Your task to perform on an android device: install app "Google Docs" Image 0: 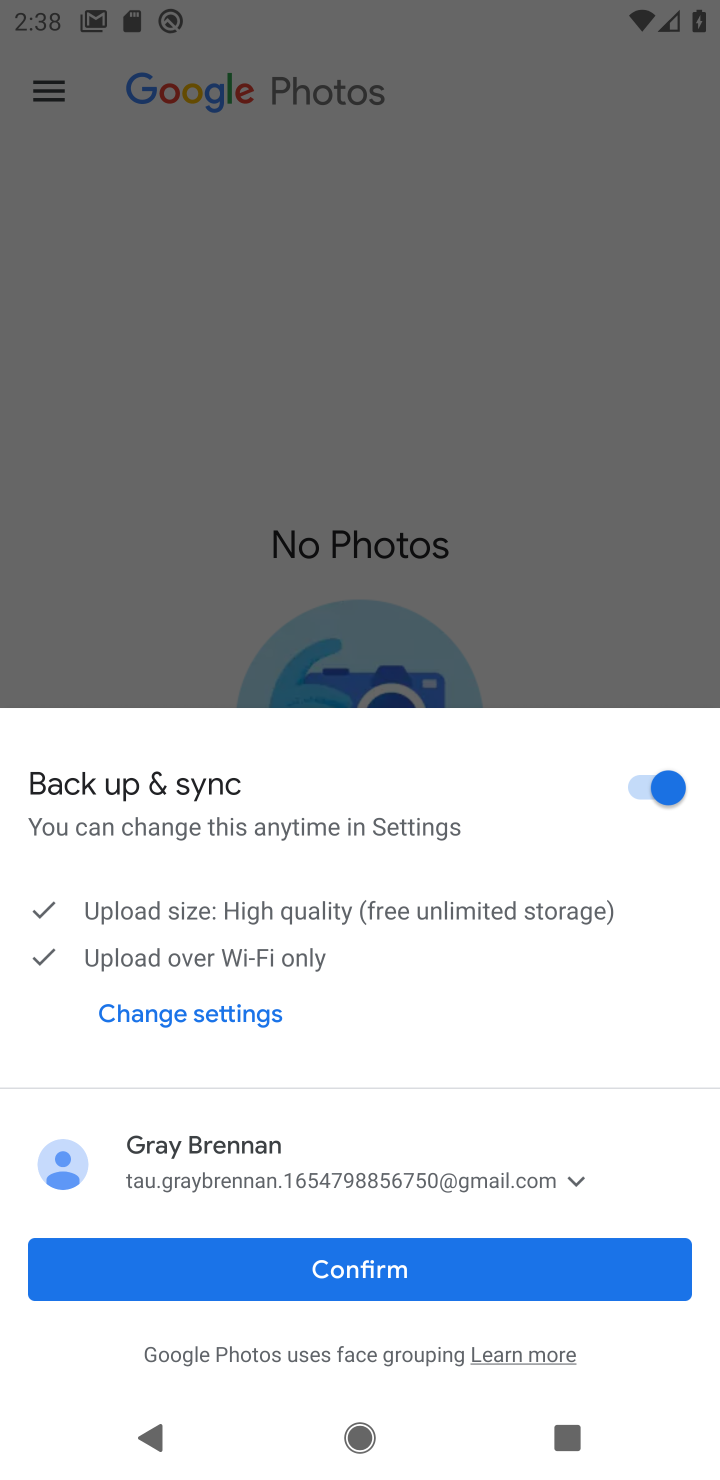
Step 0: press home button
Your task to perform on an android device: install app "Google Docs" Image 1: 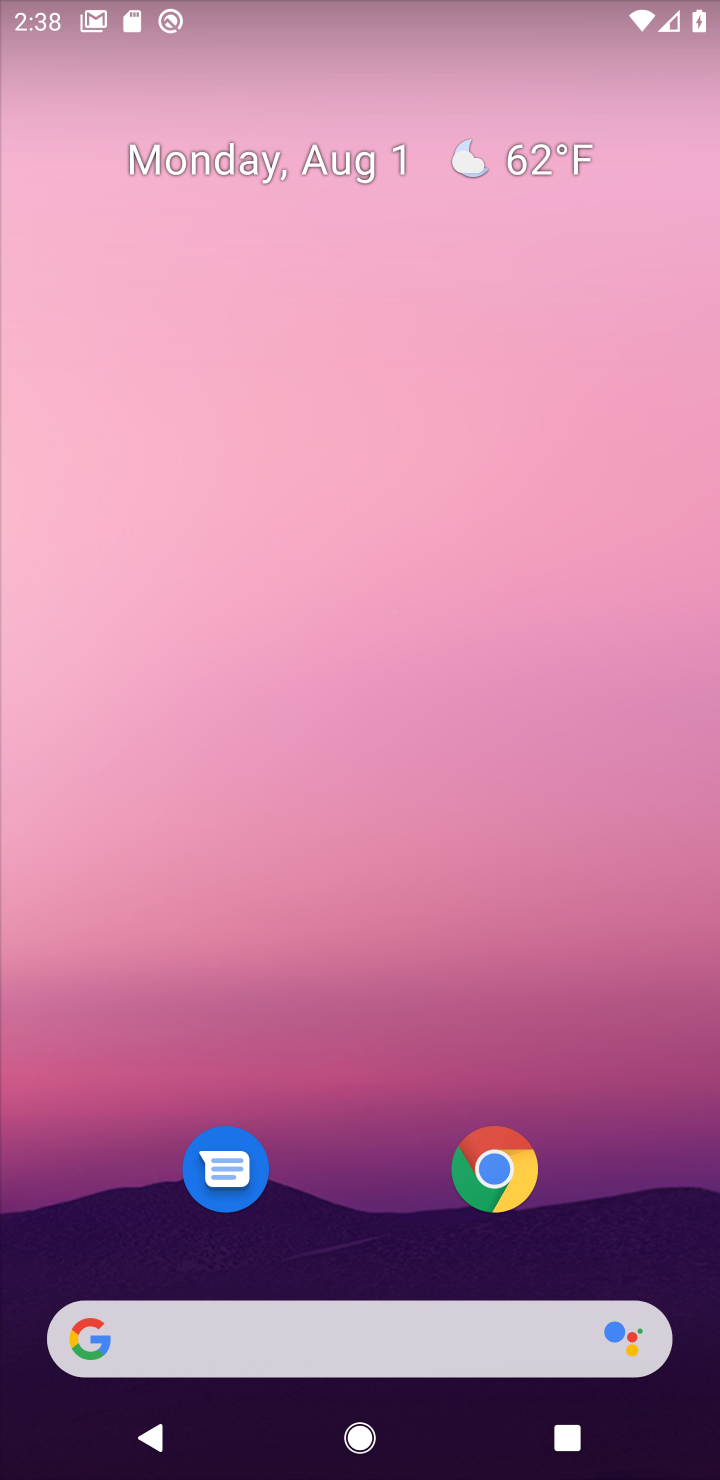
Step 1: click (392, 543)
Your task to perform on an android device: install app "Google Docs" Image 2: 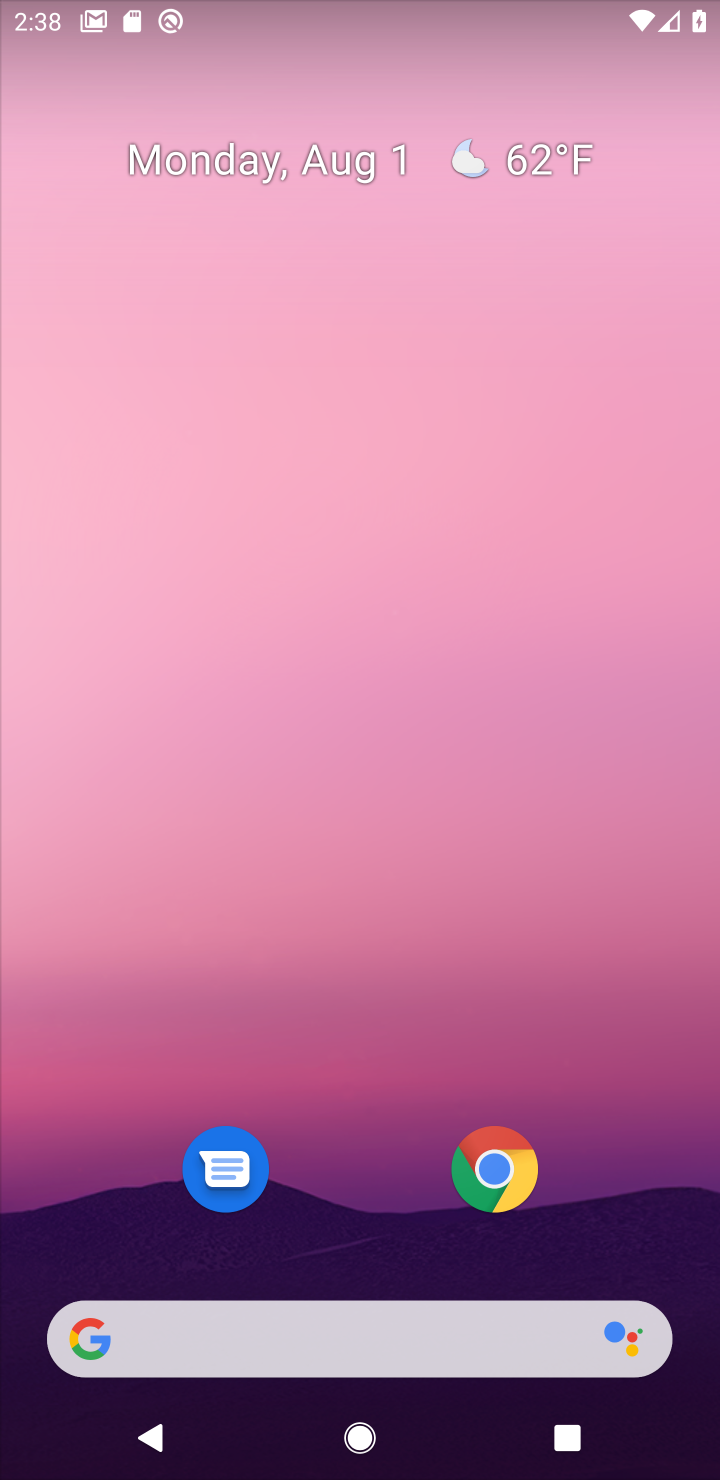
Step 2: drag from (324, 1101) to (381, 139)
Your task to perform on an android device: install app "Google Docs" Image 3: 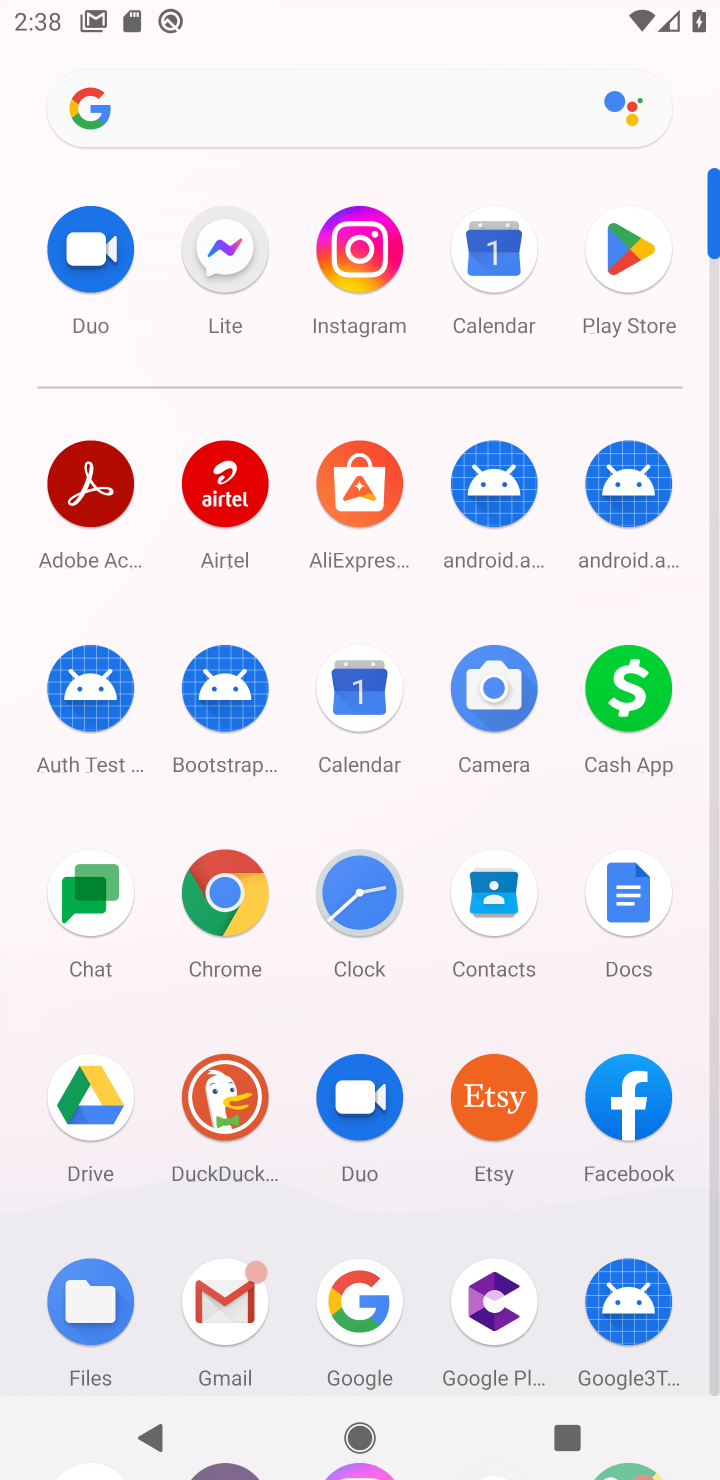
Step 3: click (632, 287)
Your task to perform on an android device: install app "Google Docs" Image 4: 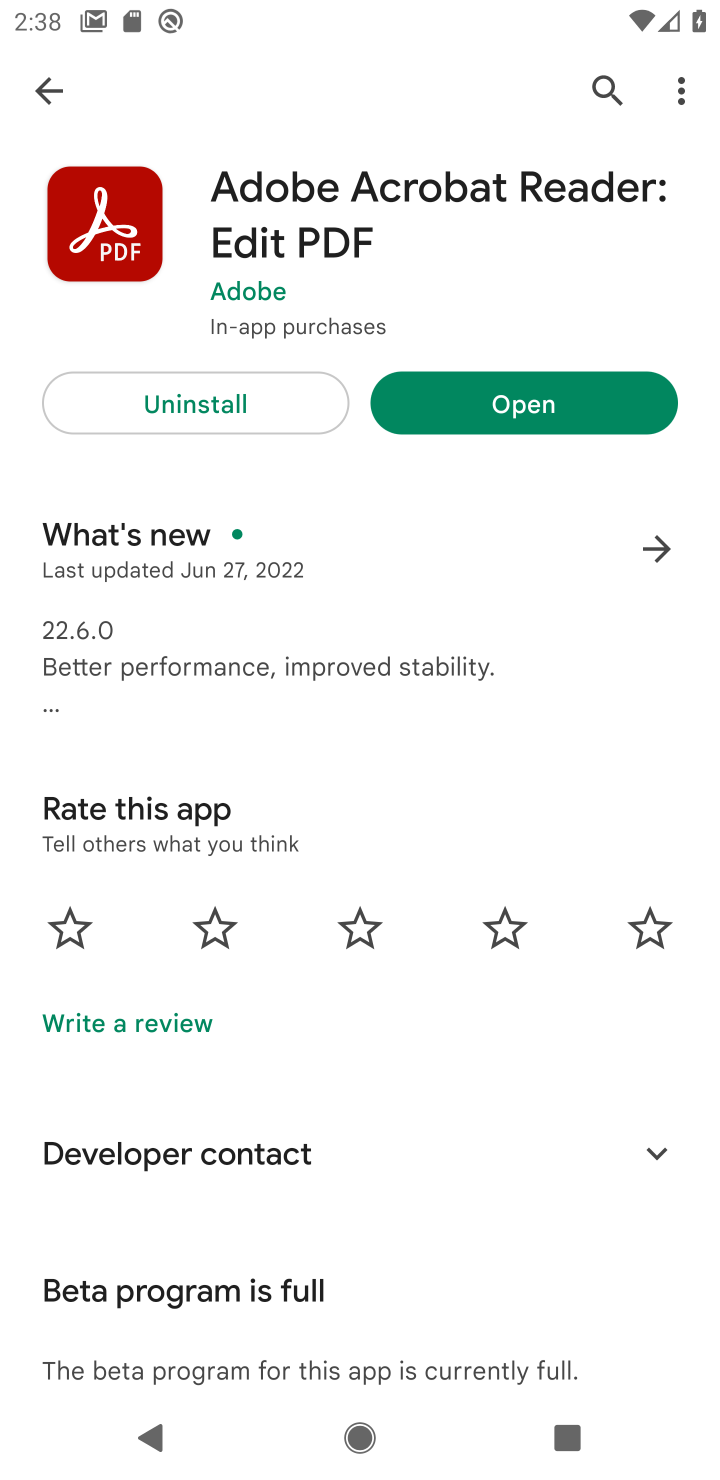
Step 4: click (47, 73)
Your task to perform on an android device: install app "Google Docs" Image 5: 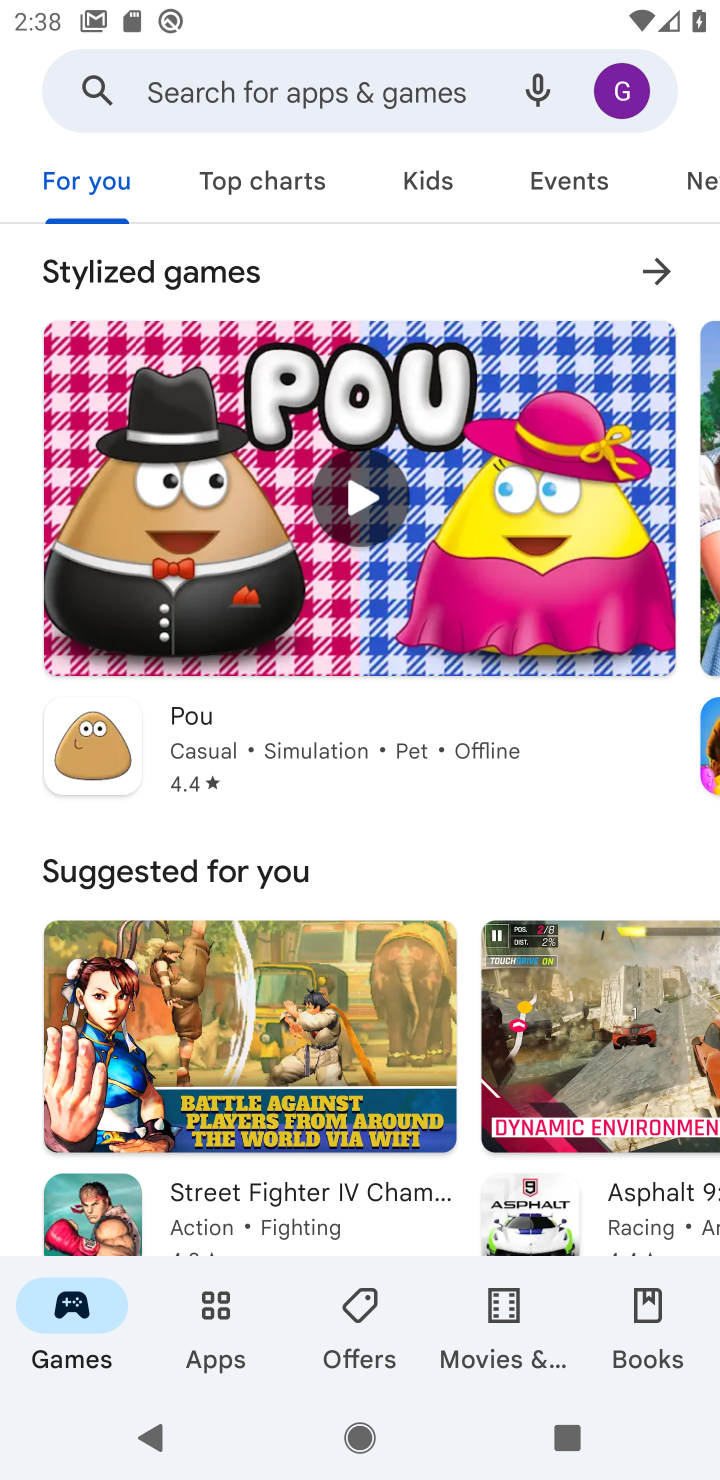
Step 5: click (387, 89)
Your task to perform on an android device: install app "Google Docs" Image 6: 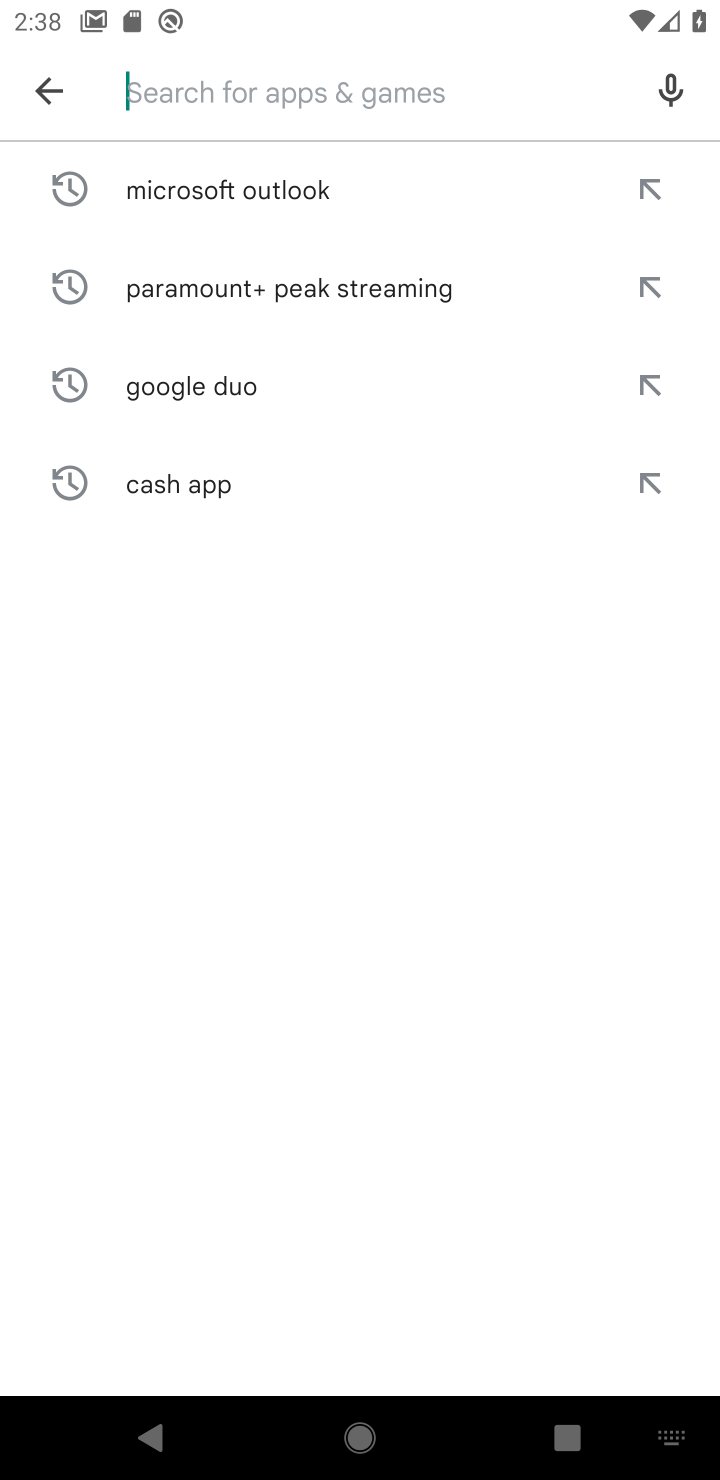
Step 6: type "Google Docs"
Your task to perform on an android device: install app "Google Docs" Image 7: 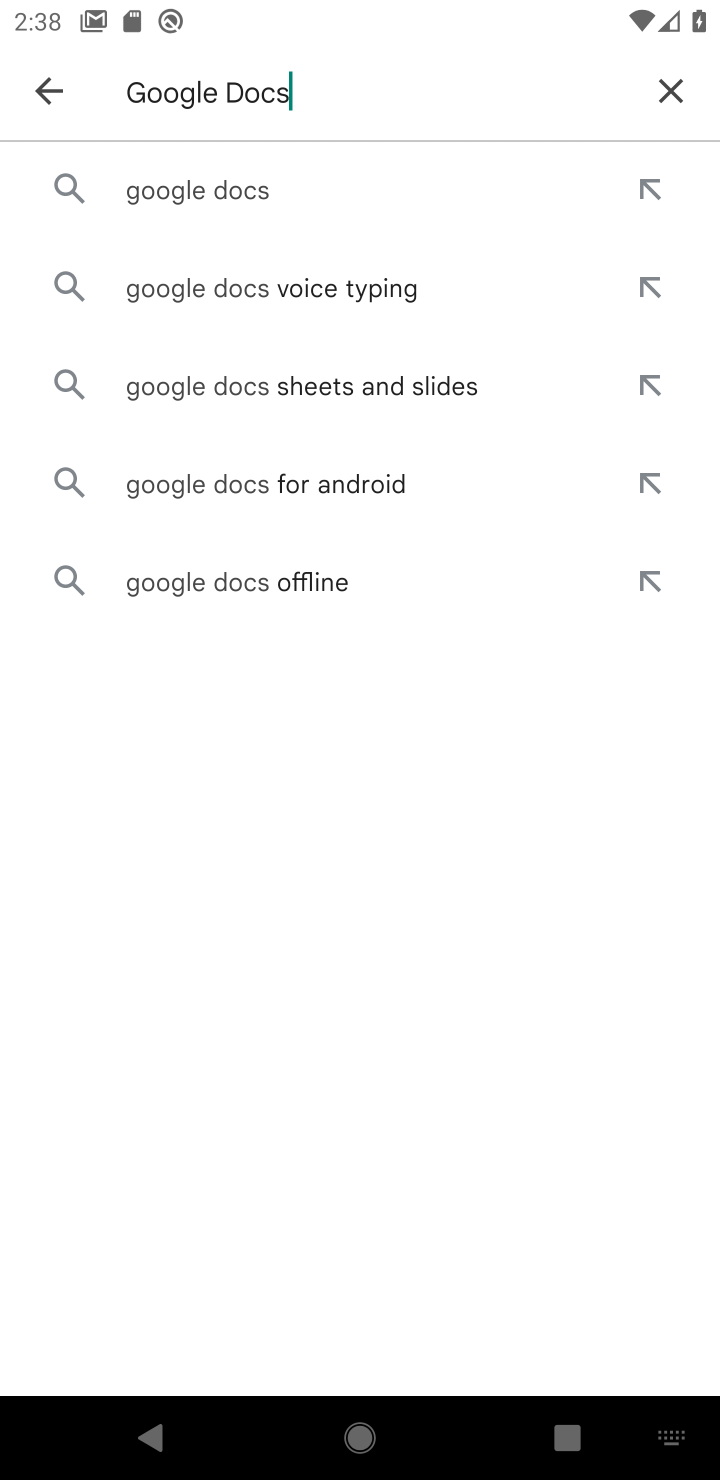
Step 7: click (184, 190)
Your task to perform on an android device: install app "Google Docs" Image 8: 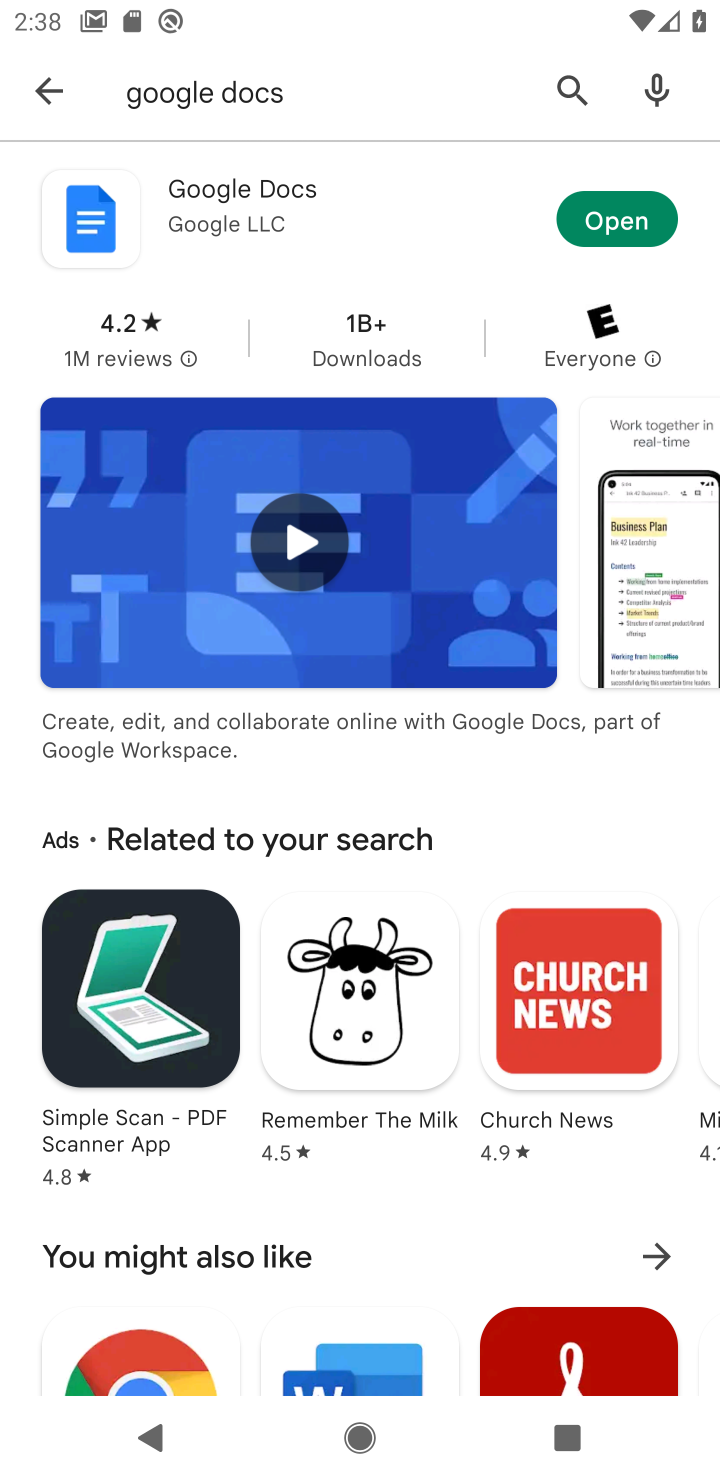
Step 8: click (624, 241)
Your task to perform on an android device: install app "Google Docs" Image 9: 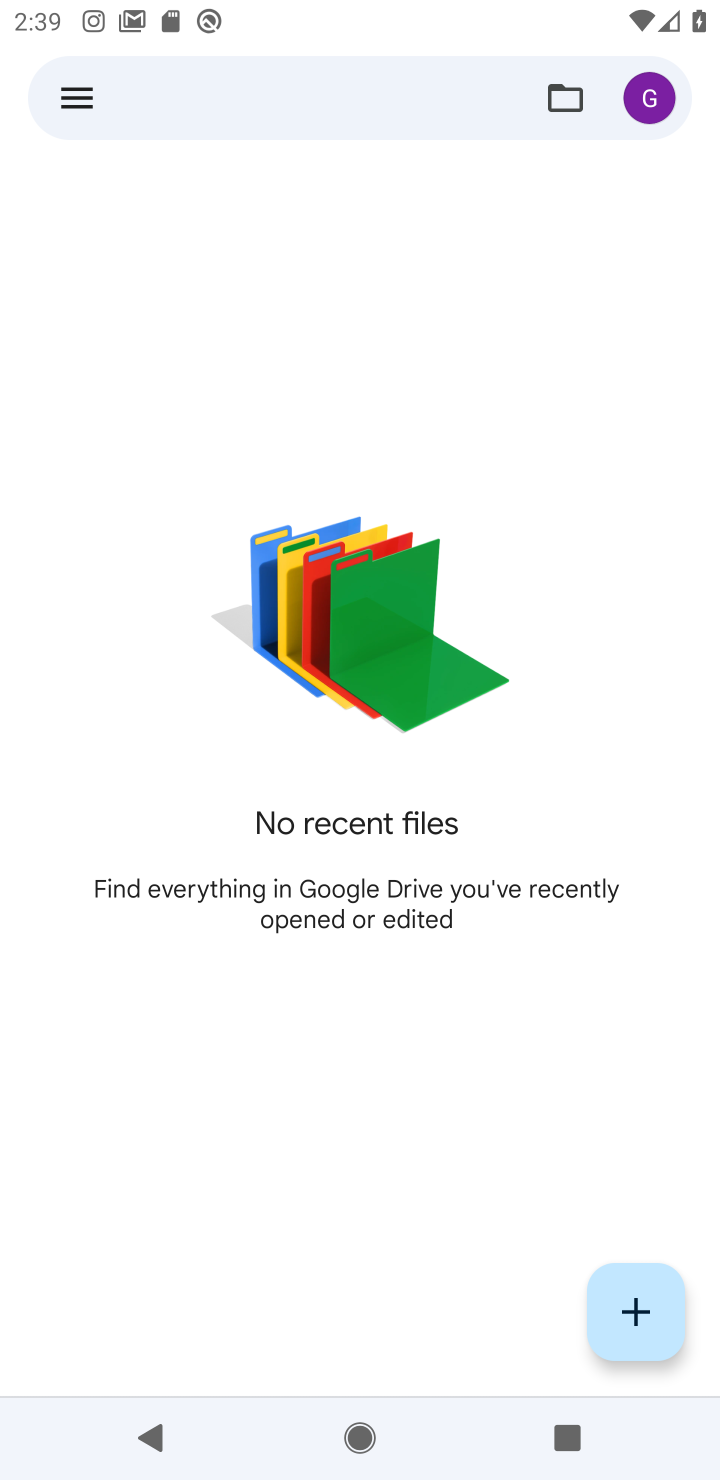
Step 9: task complete